Your task to perform on an android device: Open the web browser Image 0: 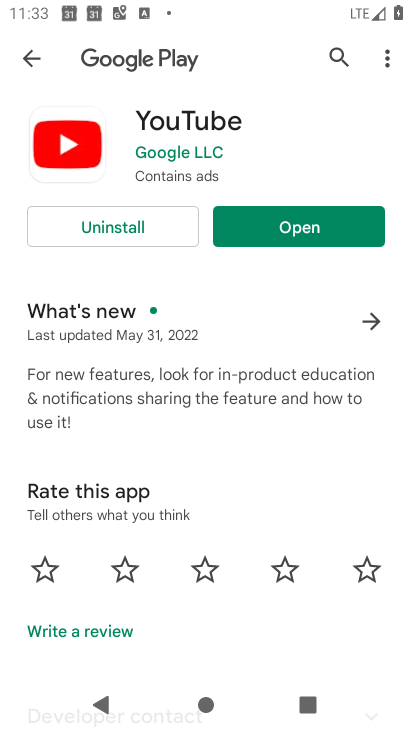
Step 0: press home button
Your task to perform on an android device: Open the web browser Image 1: 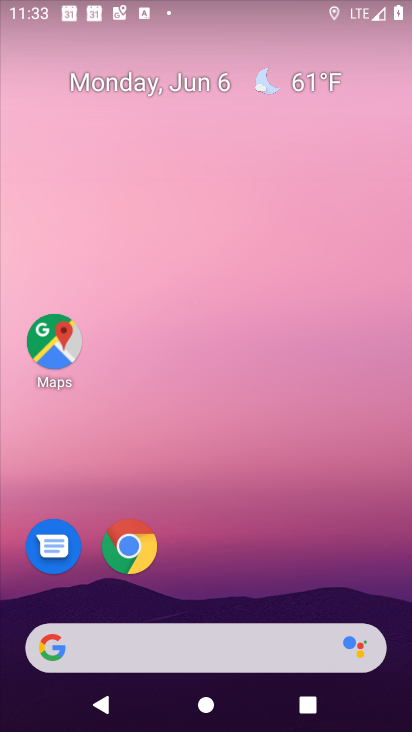
Step 1: click (127, 548)
Your task to perform on an android device: Open the web browser Image 2: 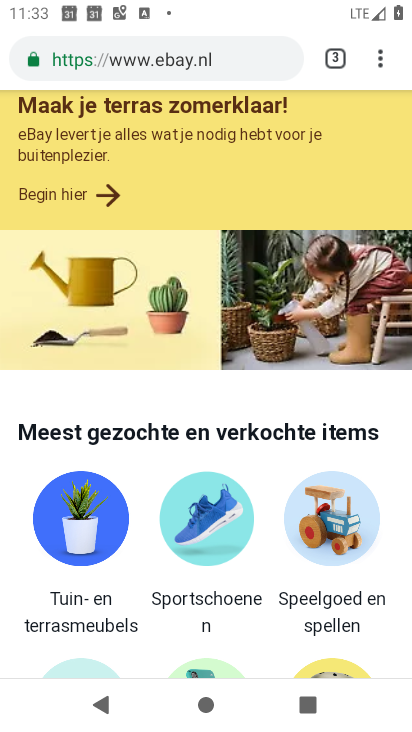
Step 2: task complete